Your task to perform on an android device: delete location history Image 0: 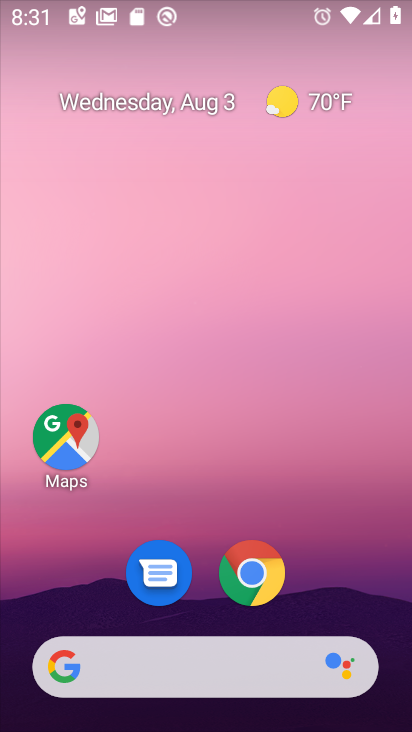
Step 0: click (66, 443)
Your task to perform on an android device: delete location history Image 1: 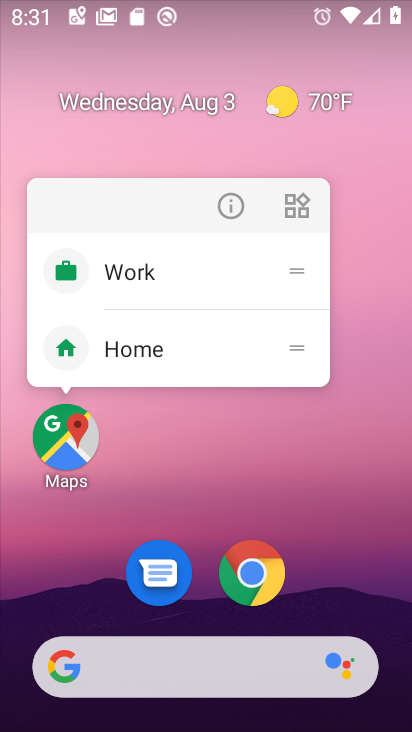
Step 1: click (63, 439)
Your task to perform on an android device: delete location history Image 2: 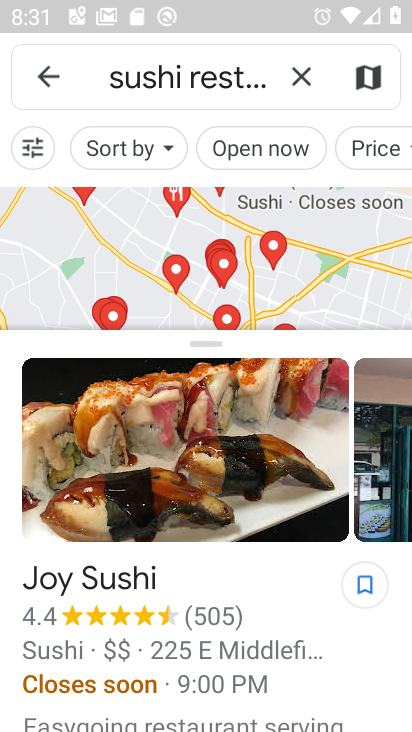
Step 2: click (301, 84)
Your task to perform on an android device: delete location history Image 3: 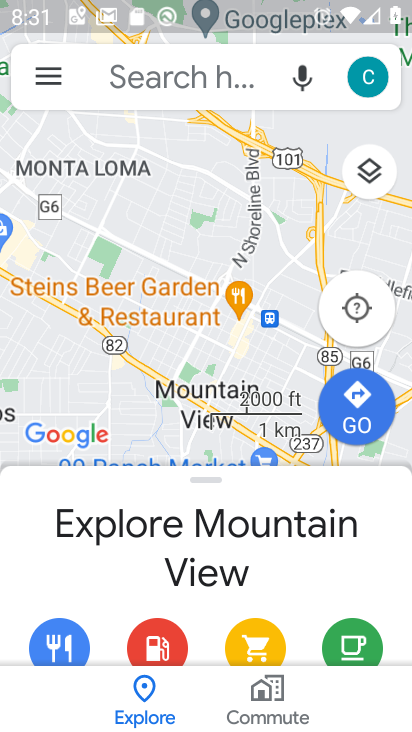
Step 3: click (47, 78)
Your task to perform on an android device: delete location history Image 4: 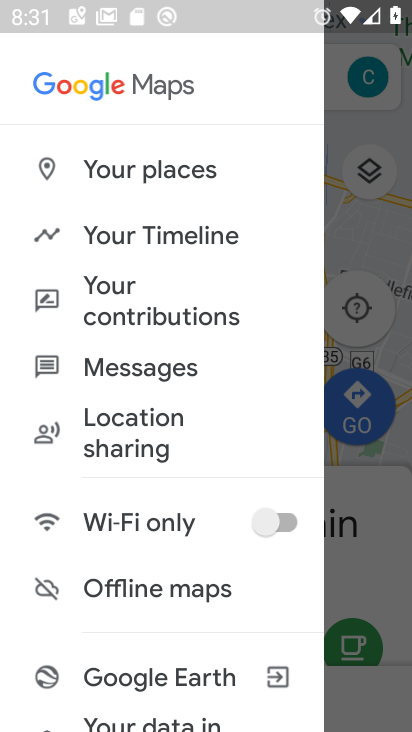
Step 4: click (118, 241)
Your task to perform on an android device: delete location history Image 5: 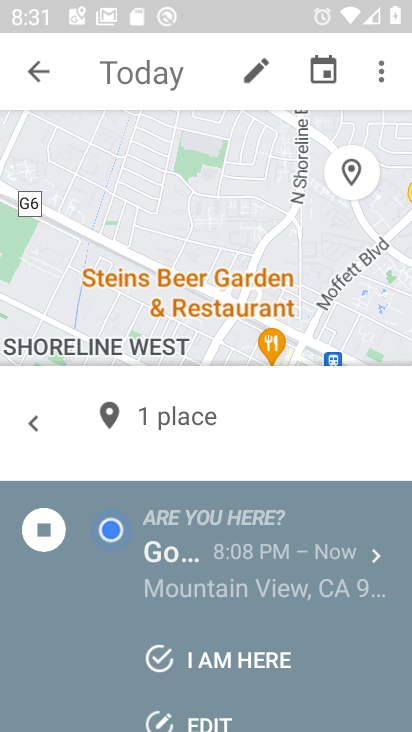
Step 5: click (382, 74)
Your task to perform on an android device: delete location history Image 6: 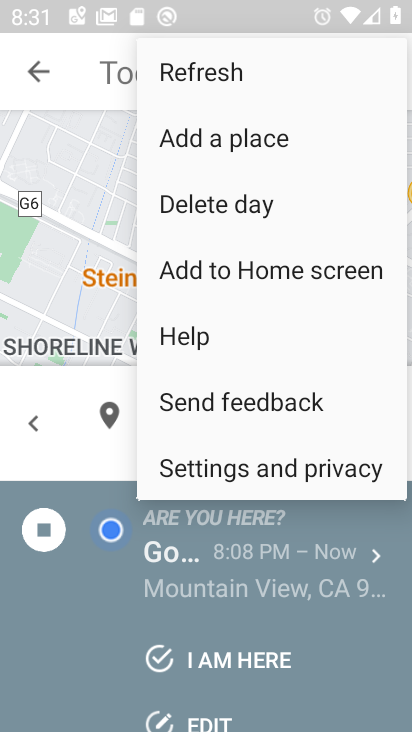
Step 6: click (224, 471)
Your task to perform on an android device: delete location history Image 7: 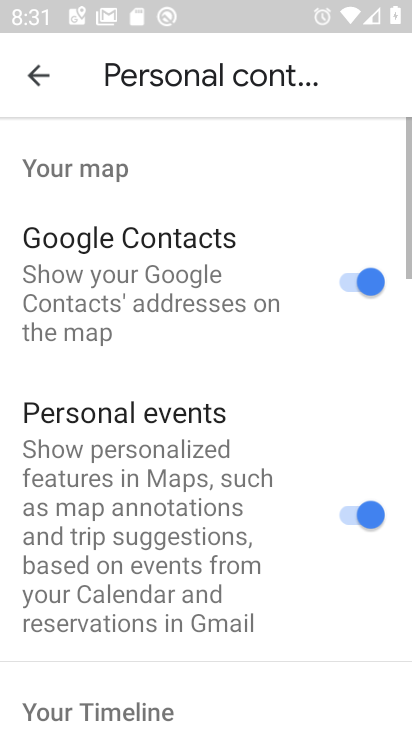
Step 7: drag from (157, 587) to (157, 135)
Your task to perform on an android device: delete location history Image 8: 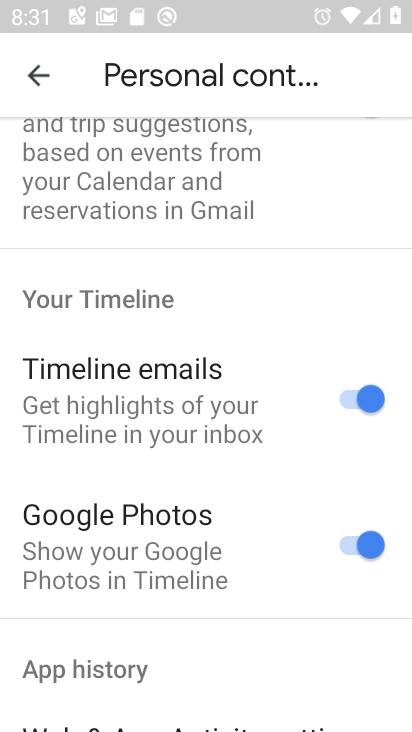
Step 8: drag from (133, 630) to (129, 170)
Your task to perform on an android device: delete location history Image 9: 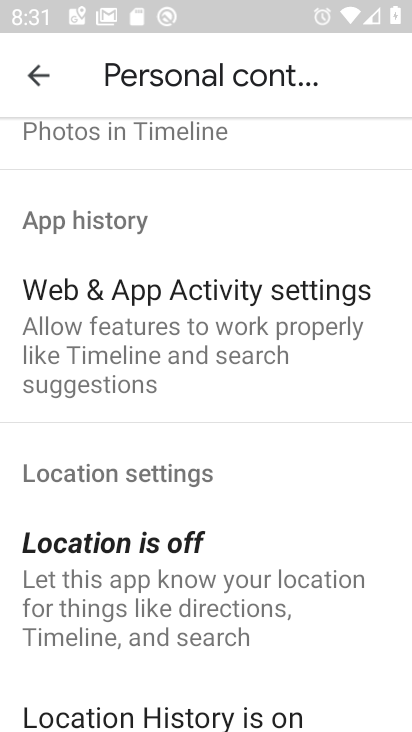
Step 9: drag from (254, 525) to (211, 130)
Your task to perform on an android device: delete location history Image 10: 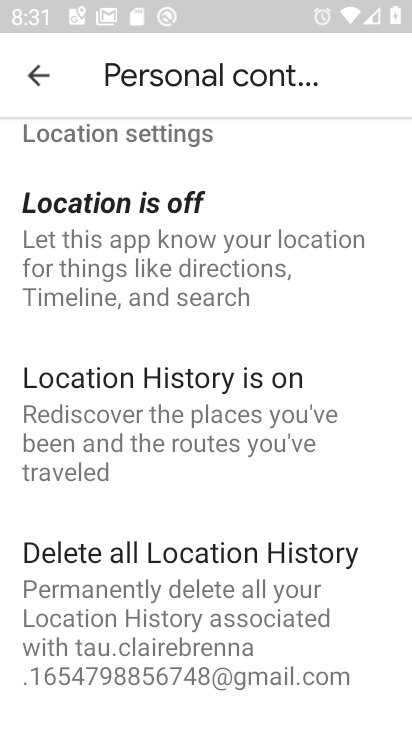
Step 10: click (123, 583)
Your task to perform on an android device: delete location history Image 11: 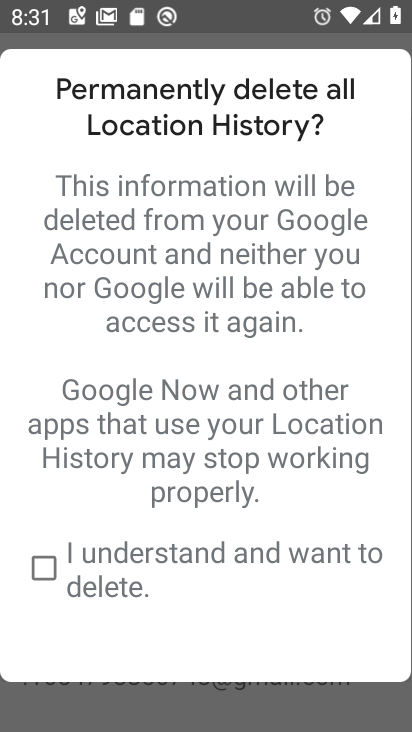
Step 11: click (48, 569)
Your task to perform on an android device: delete location history Image 12: 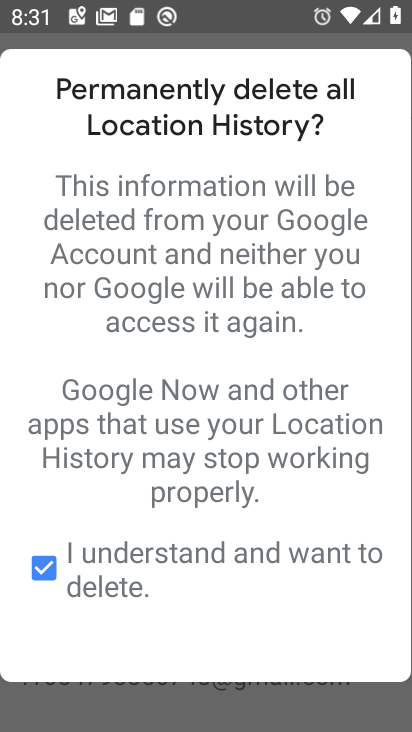
Step 12: click (355, 663)
Your task to perform on an android device: delete location history Image 13: 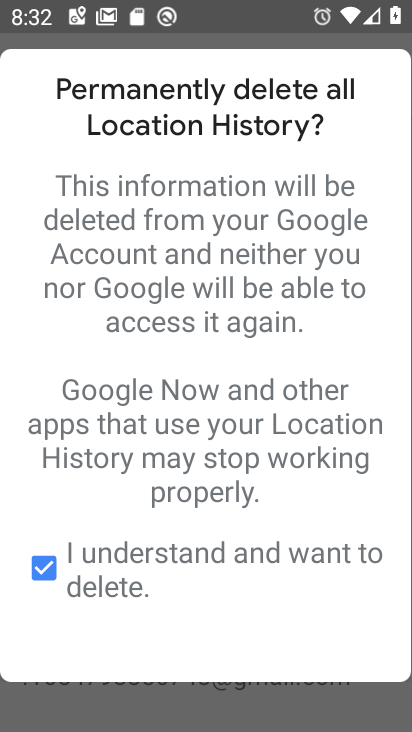
Step 13: click (355, 663)
Your task to perform on an android device: delete location history Image 14: 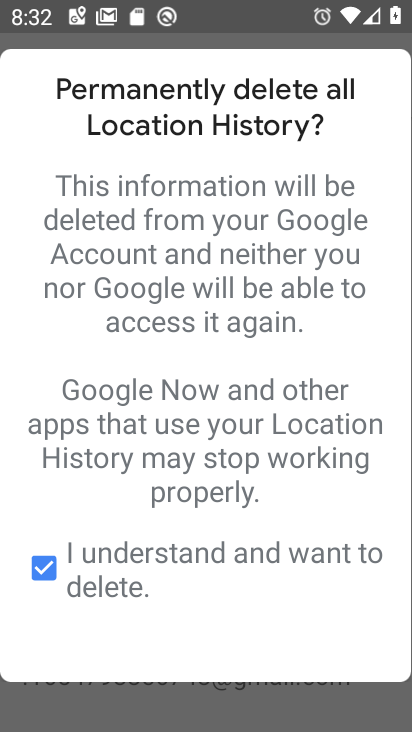
Step 14: click (355, 663)
Your task to perform on an android device: delete location history Image 15: 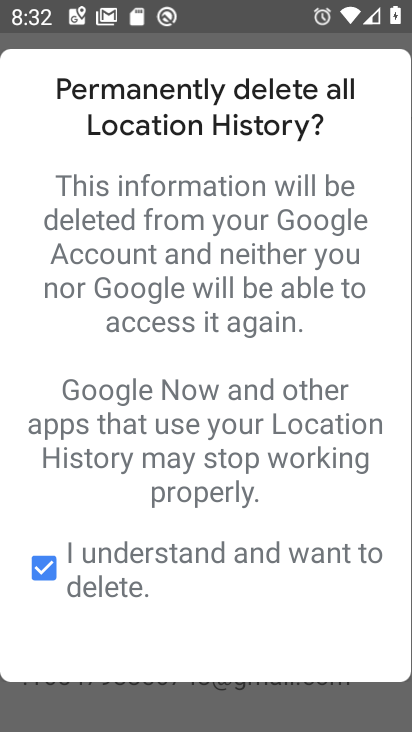
Step 15: click (355, 663)
Your task to perform on an android device: delete location history Image 16: 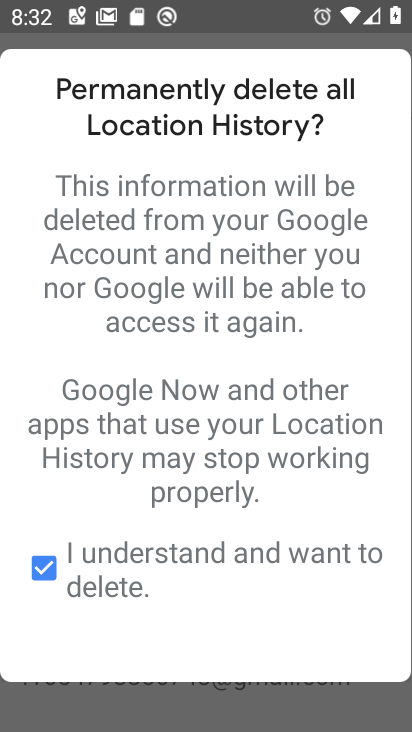
Step 16: click (355, 663)
Your task to perform on an android device: delete location history Image 17: 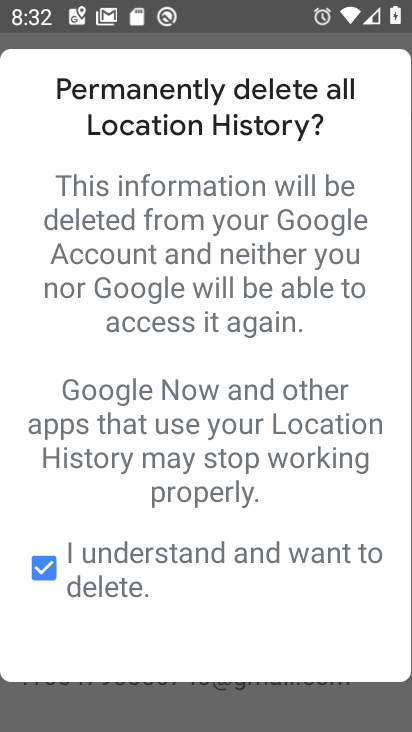
Step 17: click (369, 656)
Your task to perform on an android device: delete location history Image 18: 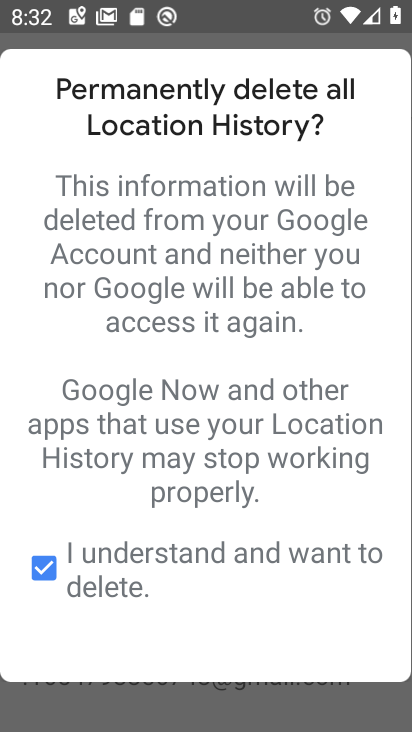
Step 18: click (238, 645)
Your task to perform on an android device: delete location history Image 19: 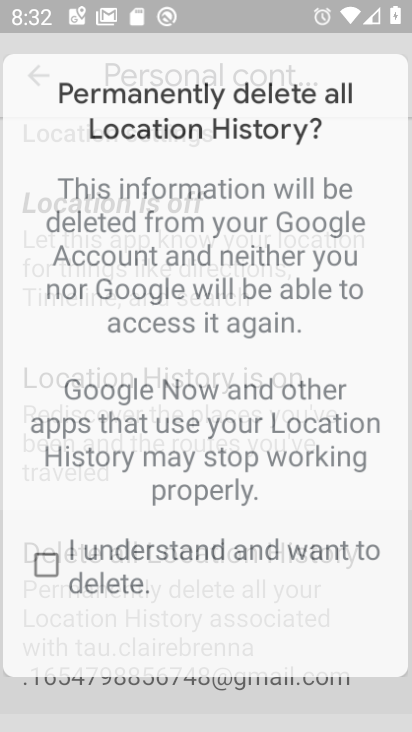
Step 19: click (344, 643)
Your task to perform on an android device: delete location history Image 20: 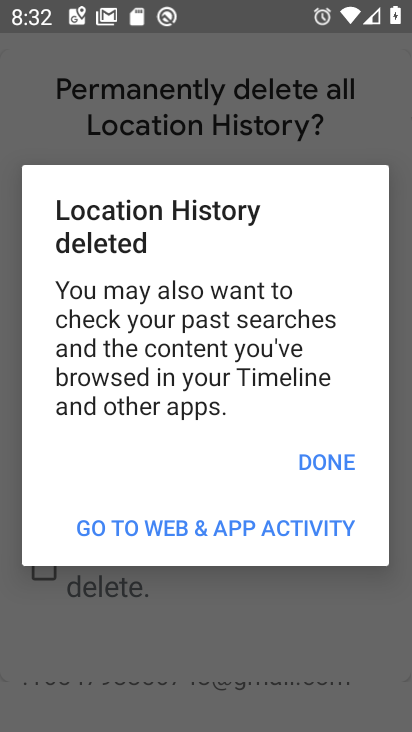
Step 20: click (318, 466)
Your task to perform on an android device: delete location history Image 21: 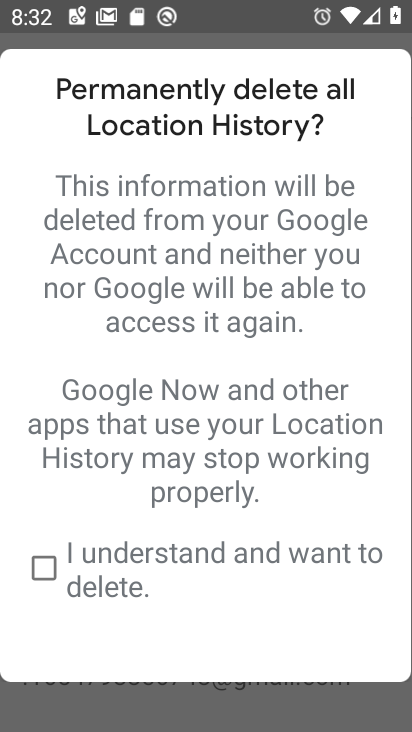
Step 21: click (46, 557)
Your task to perform on an android device: delete location history Image 22: 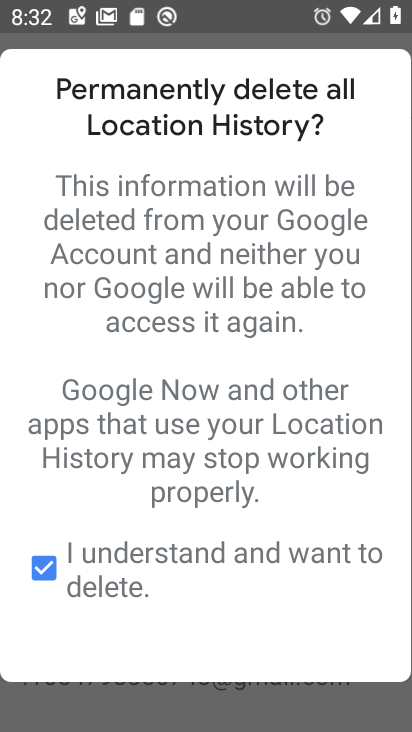
Step 22: click (350, 656)
Your task to perform on an android device: delete location history Image 23: 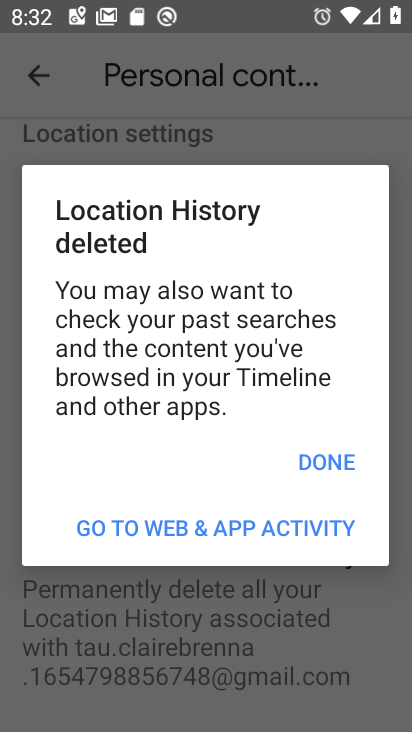
Step 23: click (322, 459)
Your task to perform on an android device: delete location history Image 24: 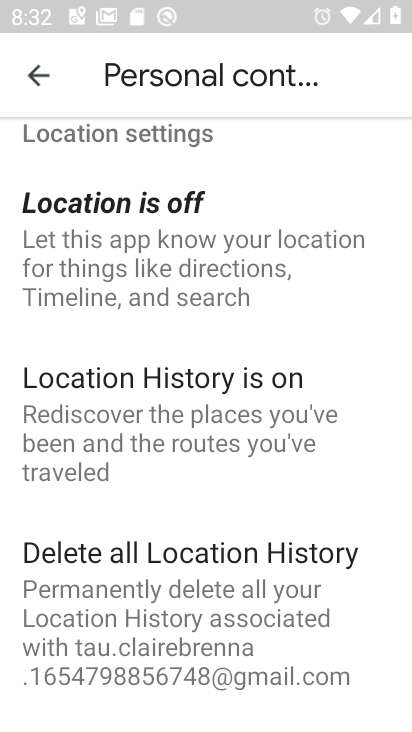
Step 24: task complete